Your task to perform on an android device: Open sound settings Image 0: 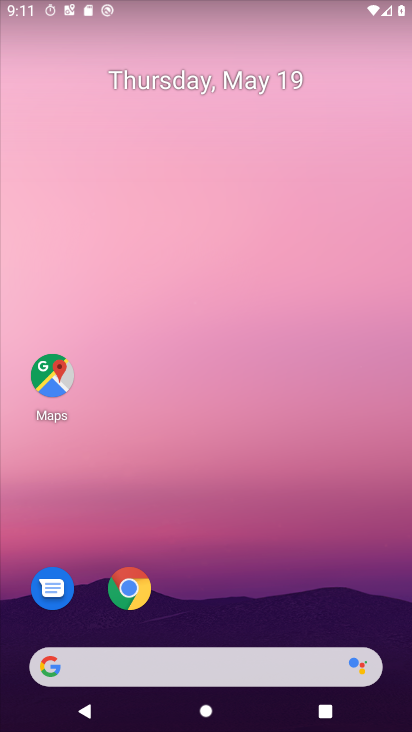
Step 0: press home button
Your task to perform on an android device: Open sound settings Image 1: 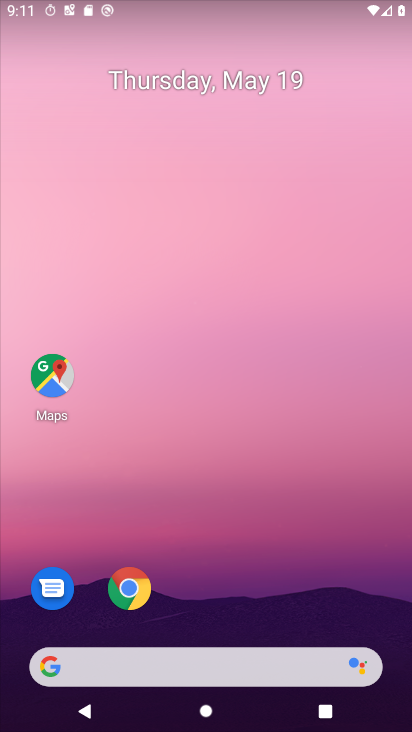
Step 1: drag from (160, 669) to (339, 173)
Your task to perform on an android device: Open sound settings Image 2: 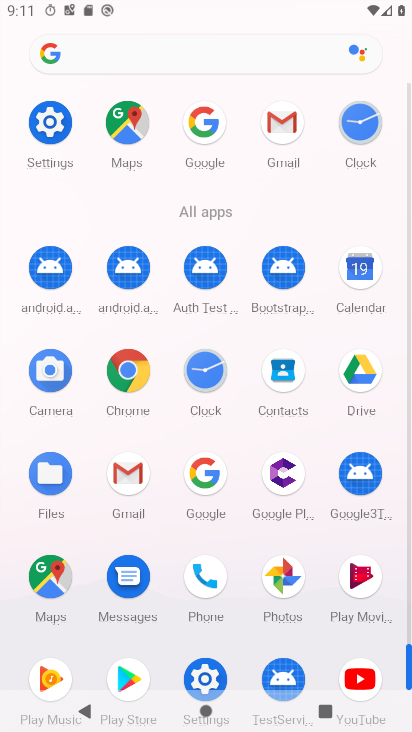
Step 2: click (55, 127)
Your task to perform on an android device: Open sound settings Image 3: 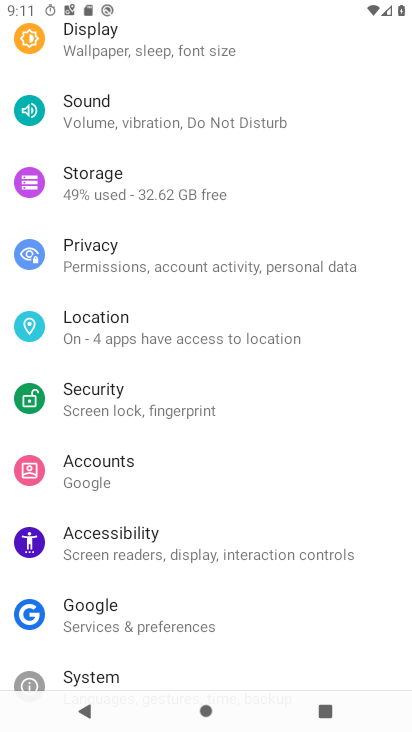
Step 3: click (157, 120)
Your task to perform on an android device: Open sound settings Image 4: 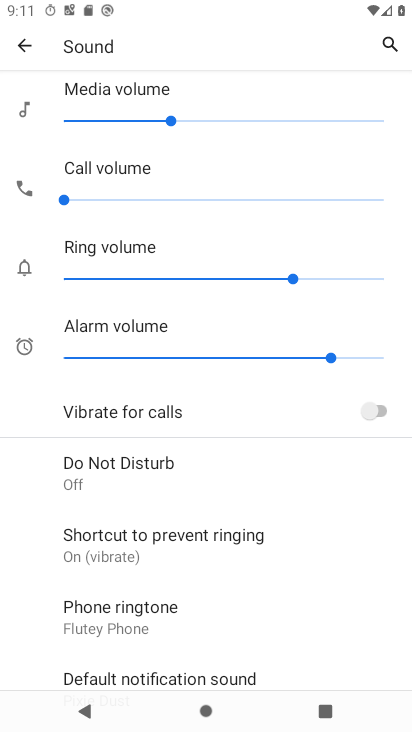
Step 4: task complete